Your task to perform on an android device: Open calendar and show me the first week of next month Image 0: 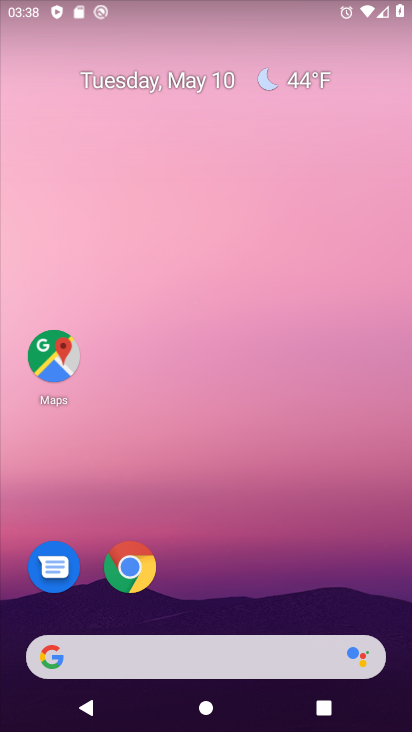
Step 0: drag from (216, 581) to (208, 129)
Your task to perform on an android device: Open calendar and show me the first week of next month Image 1: 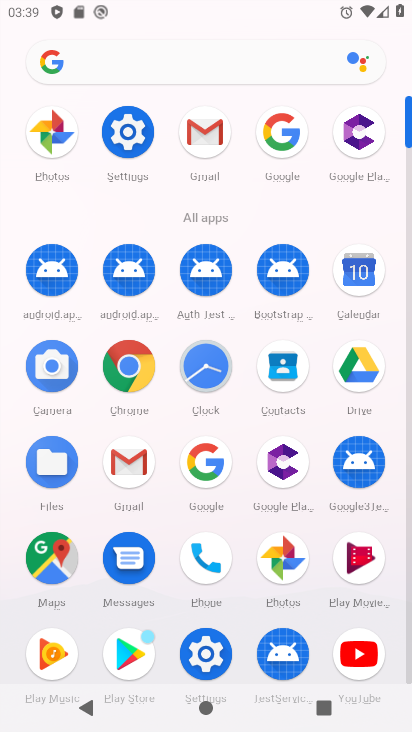
Step 1: click (353, 276)
Your task to perform on an android device: Open calendar and show me the first week of next month Image 2: 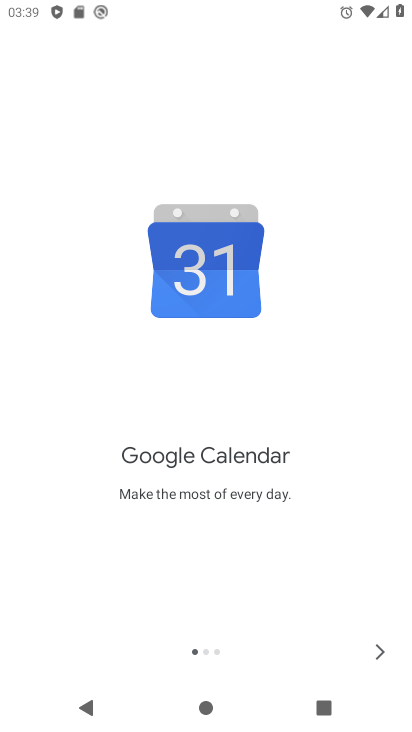
Step 2: click (376, 647)
Your task to perform on an android device: Open calendar and show me the first week of next month Image 3: 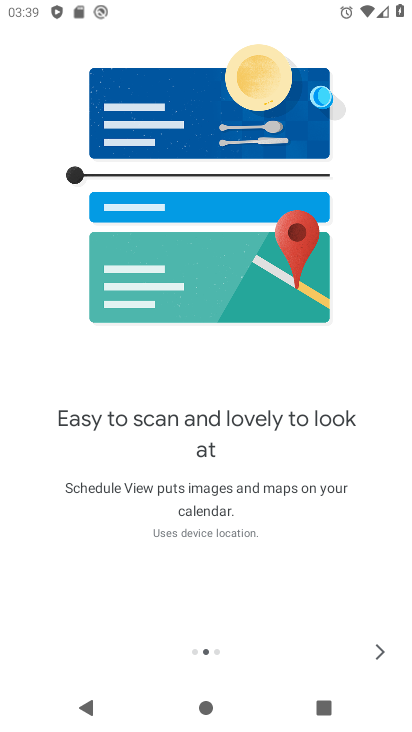
Step 3: click (376, 647)
Your task to perform on an android device: Open calendar and show me the first week of next month Image 4: 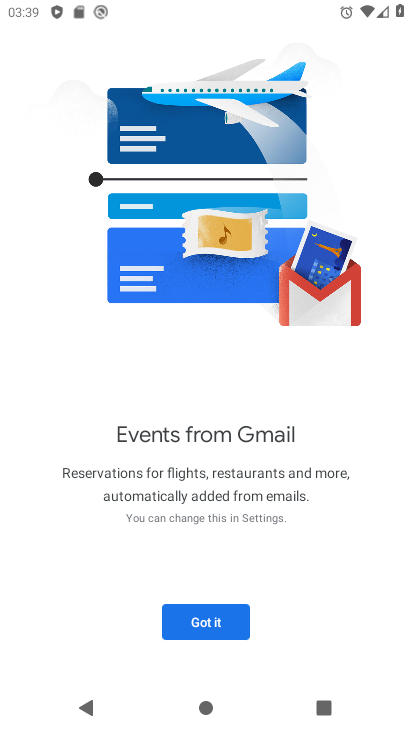
Step 4: click (193, 622)
Your task to perform on an android device: Open calendar and show me the first week of next month Image 5: 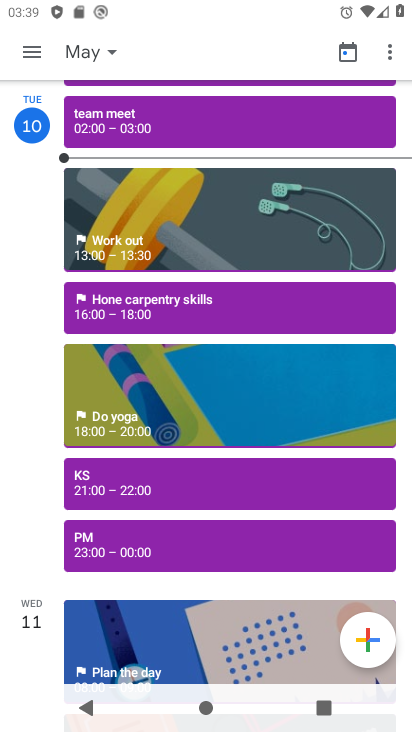
Step 5: click (102, 64)
Your task to perform on an android device: Open calendar and show me the first week of next month Image 6: 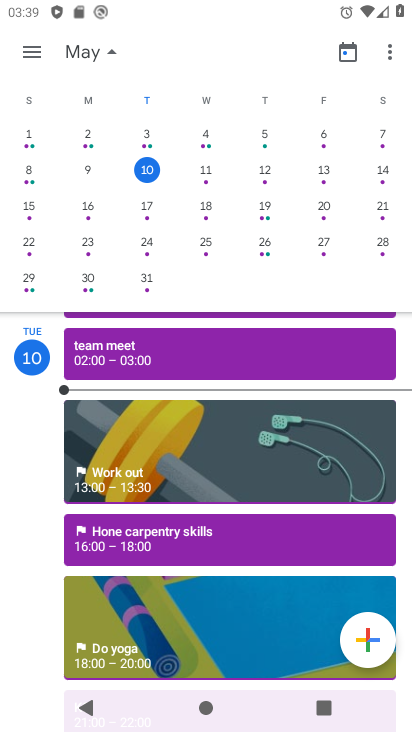
Step 6: drag from (367, 291) to (3, 237)
Your task to perform on an android device: Open calendar and show me the first week of next month Image 7: 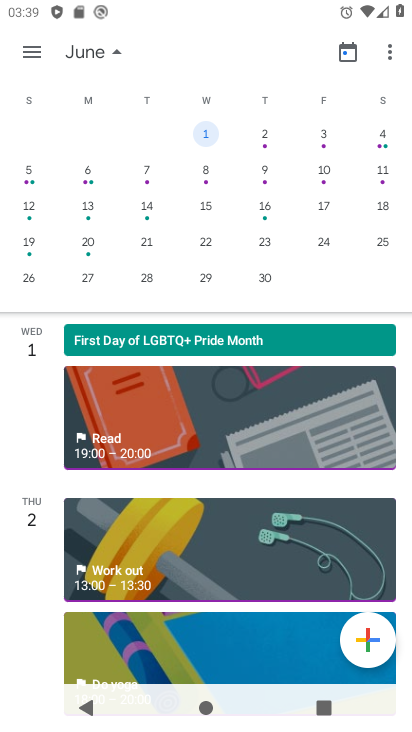
Step 7: click (260, 133)
Your task to perform on an android device: Open calendar and show me the first week of next month Image 8: 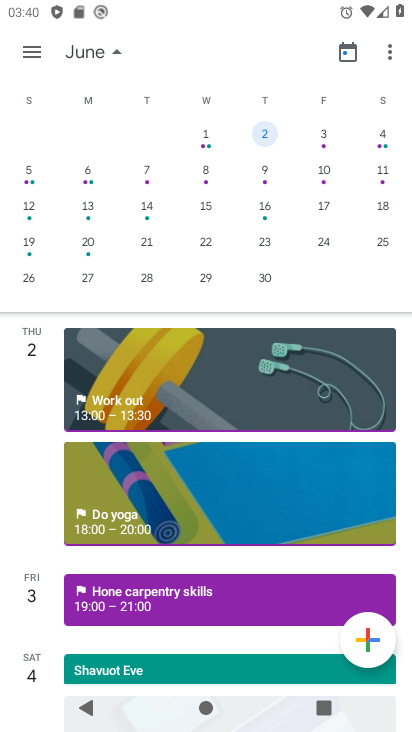
Step 8: task complete